Your task to perform on an android device: What's the weather? Image 0: 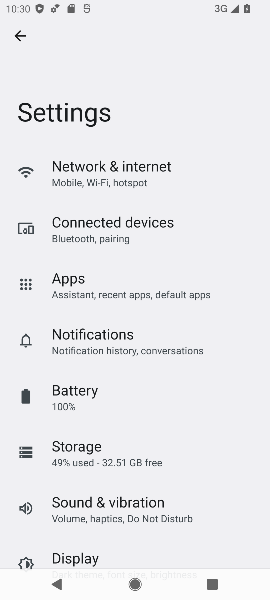
Step 0: press home button
Your task to perform on an android device: What's the weather? Image 1: 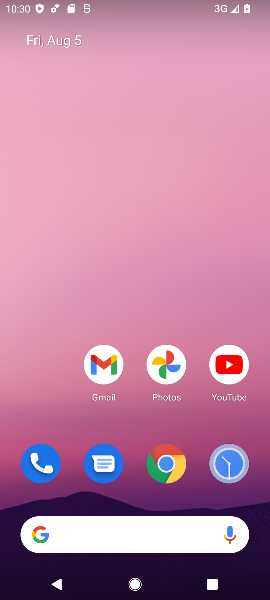
Step 1: drag from (182, 519) to (178, 69)
Your task to perform on an android device: What's the weather? Image 2: 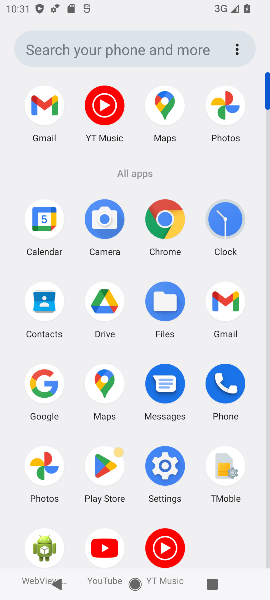
Step 2: click (173, 216)
Your task to perform on an android device: What's the weather? Image 3: 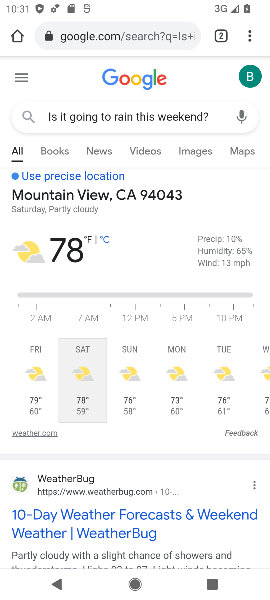
Step 3: click (254, 33)
Your task to perform on an android device: What's the weather? Image 4: 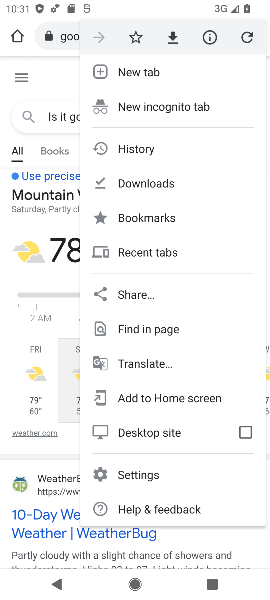
Step 4: click (164, 73)
Your task to perform on an android device: What's the weather? Image 5: 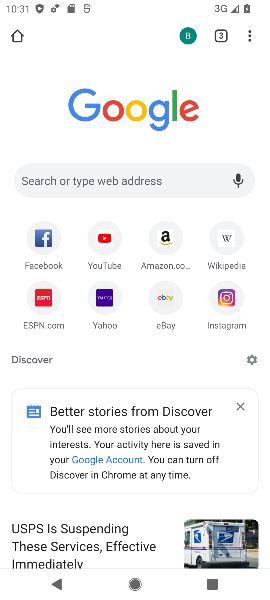
Step 5: click (122, 170)
Your task to perform on an android device: What's the weather? Image 6: 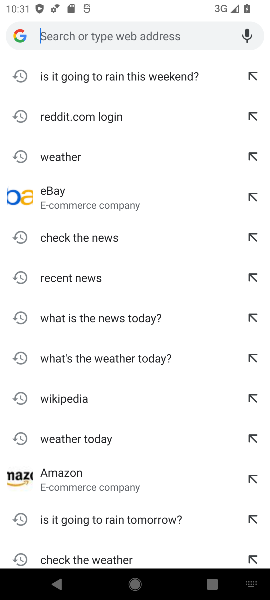
Step 6: type "What's the weather? "
Your task to perform on an android device: What's the weather? Image 7: 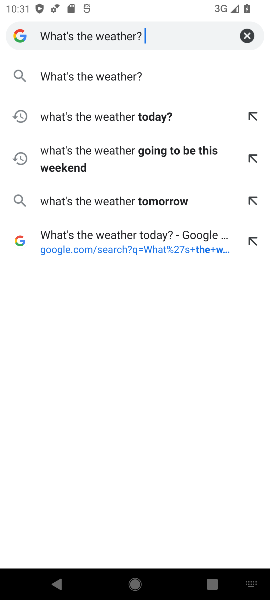
Step 7: click (118, 75)
Your task to perform on an android device: What's the weather? Image 8: 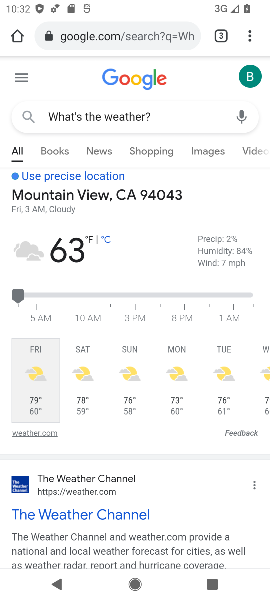
Step 8: task complete